Your task to perform on an android device: Do I have any events tomorrow? Image 0: 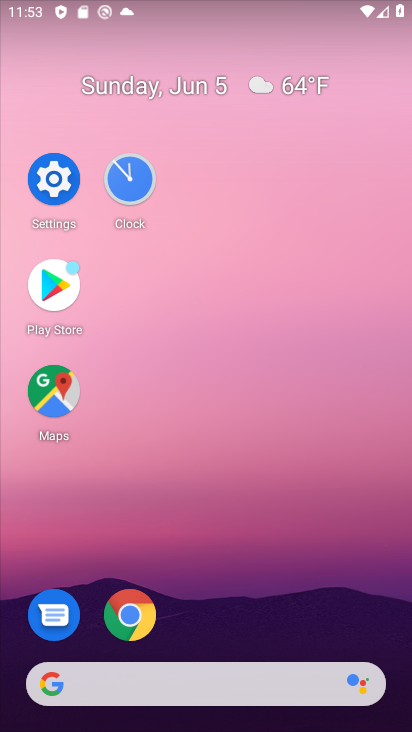
Step 0: drag from (347, 582) to (253, 53)
Your task to perform on an android device: Do I have any events tomorrow? Image 1: 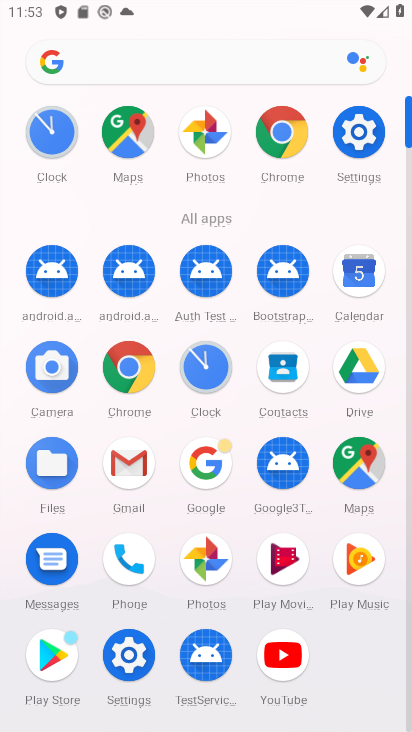
Step 1: drag from (348, 275) to (192, 199)
Your task to perform on an android device: Do I have any events tomorrow? Image 2: 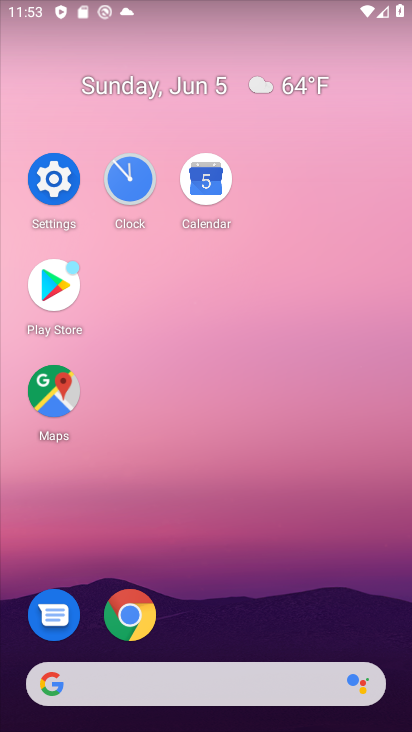
Step 2: click (199, 180)
Your task to perform on an android device: Do I have any events tomorrow? Image 3: 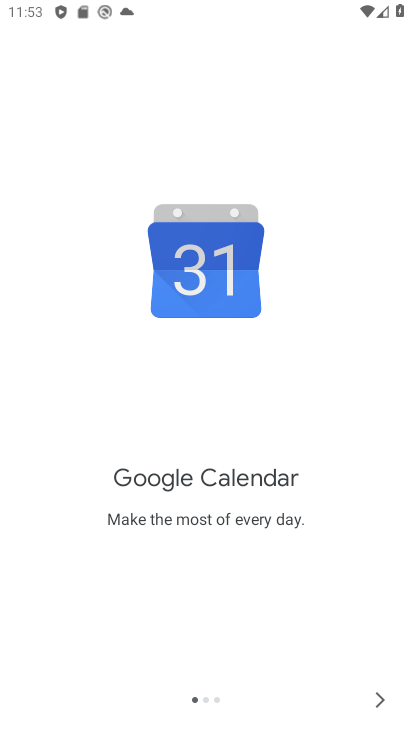
Step 3: click (376, 697)
Your task to perform on an android device: Do I have any events tomorrow? Image 4: 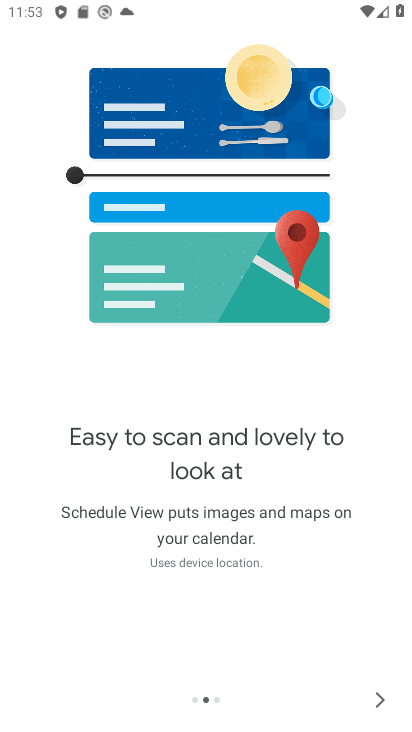
Step 4: click (376, 697)
Your task to perform on an android device: Do I have any events tomorrow? Image 5: 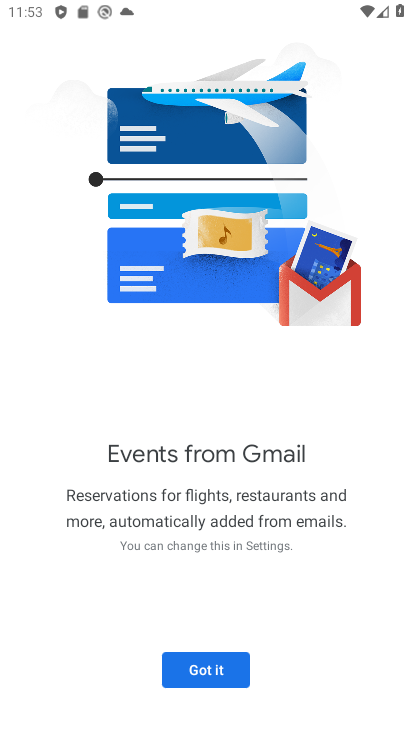
Step 5: click (376, 697)
Your task to perform on an android device: Do I have any events tomorrow? Image 6: 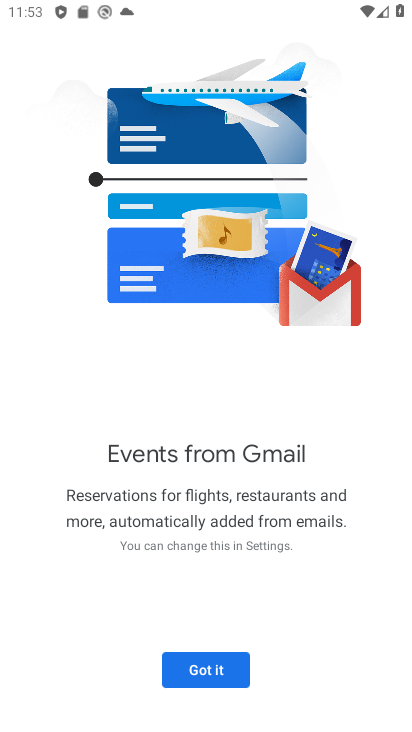
Step 6: click (226, 681)
Your task to perform on an android device: Do I have any events tomorrow? Image 7: 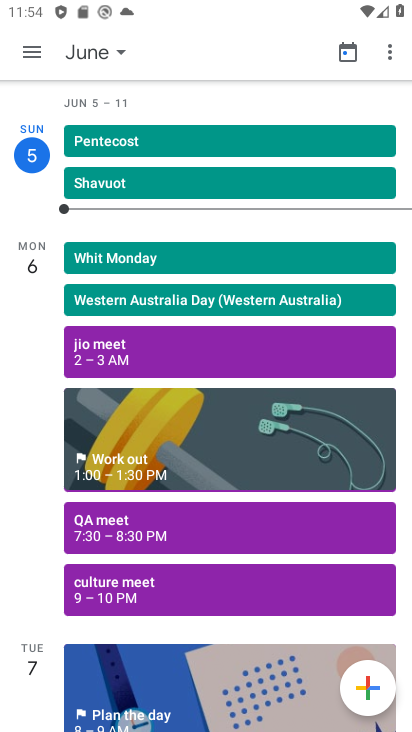
Step 7: click (38, 272)
Your task to perform on an android device: Do I have any events tomorrow? Image 8: 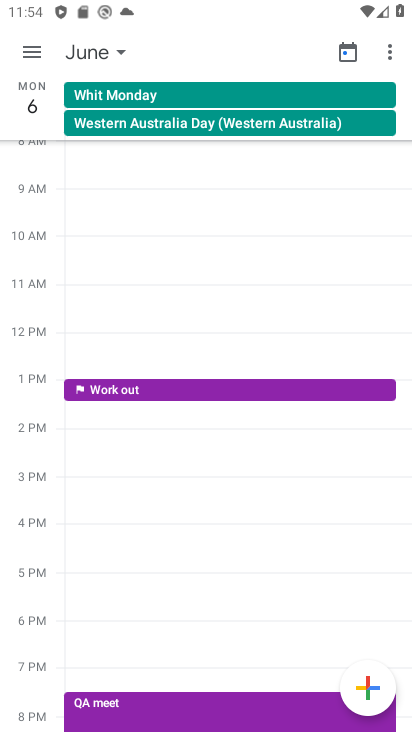
Step 8: task complete